Your task to perform on an android device: toggle data saver in the chrome app Image 0: 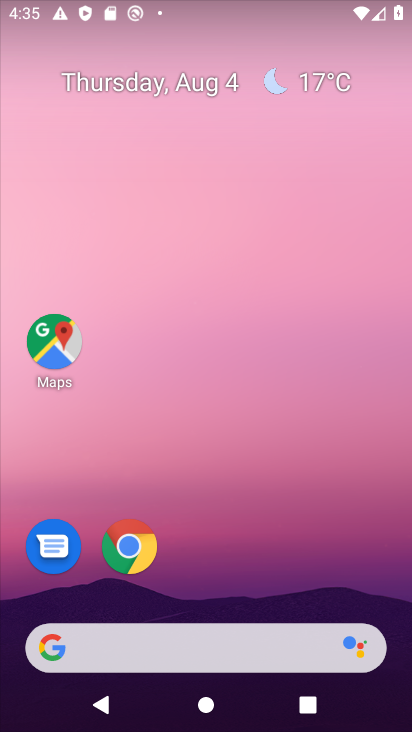
Step 0: click (127, 544)
Your task to perform on an android device: toggle data saver in the chrome app Image 1: 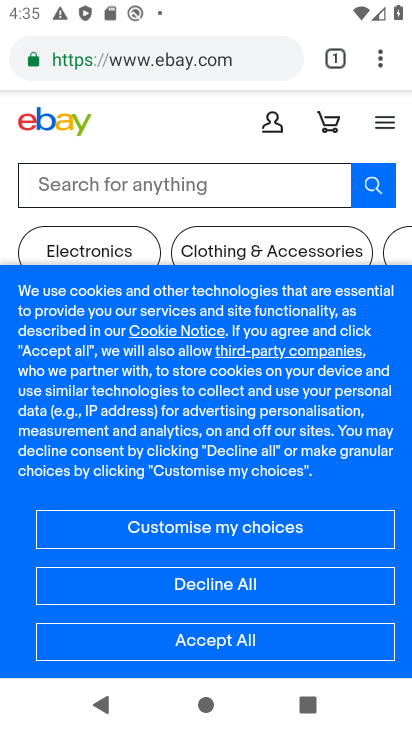
Step 1: click (373, 58)
Your task to perform on an android device: toggle data saver in the chrome app Image 2: 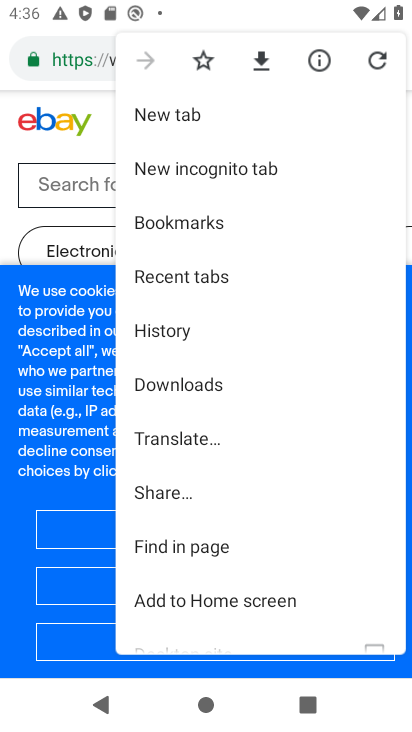
Step 2: drag from (227, 548) to (250, 253)
Your task to perform on an android device: toggle data saver in the chrome app Image 3: 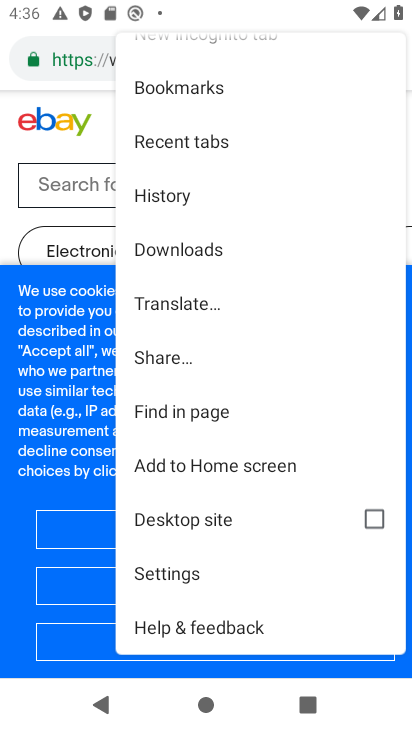
Step 3: click (185, 569)
Your task to perform on an android device: toggle data saver in the chrome app Image 4: 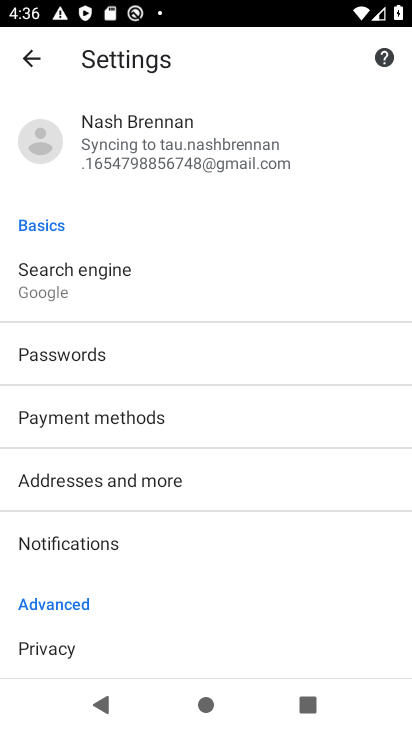
Step 4: drag from (136, 459) to (145, 304)
Your task to perform on an android device: toggle data saver in the chrome app Image 5: 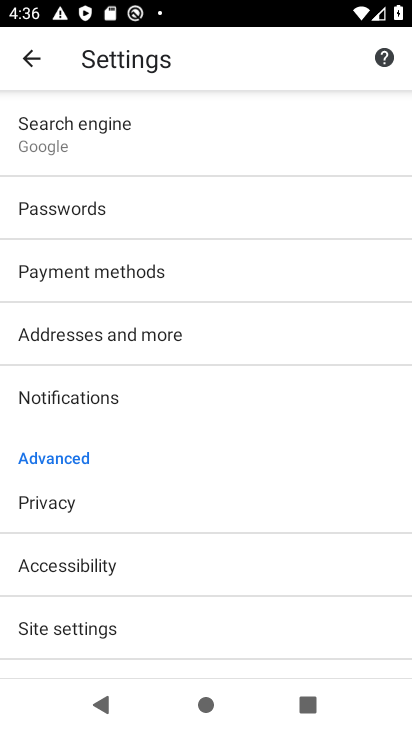
Step 5: drag from (65, 625) to (178, 151)
Your task to perform on an android device: toggle data saver in the chrome app Image 6: 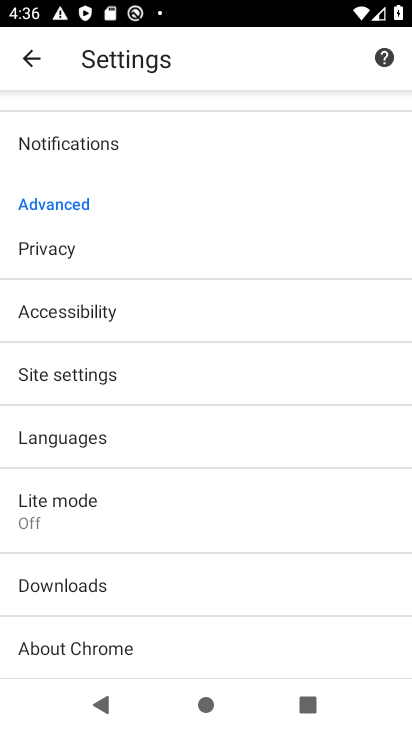
Step 6: click (118, 479)
Your task to perform on an android device: toggle data saver in the chrome app Image 7: 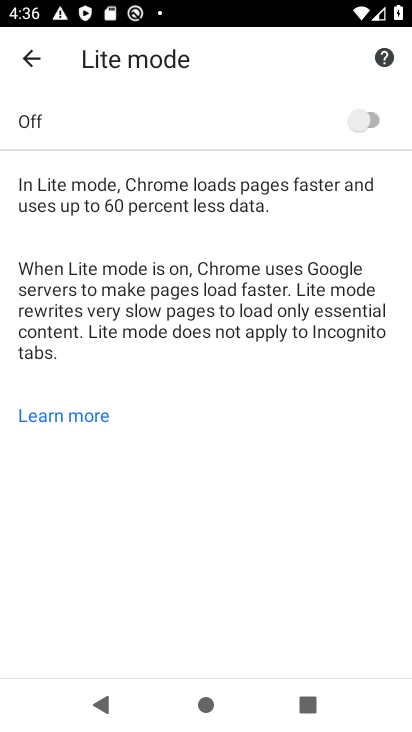
Step 7: click (370, 122)
Your task to perform on an android device: toggle data saver in the chrome app Image 8: 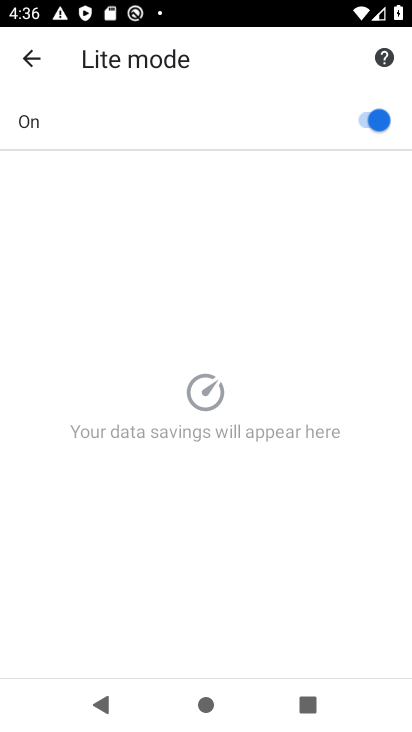
Step 8: task complete